Your task to perform on an android device: Go to Maps Image 0: 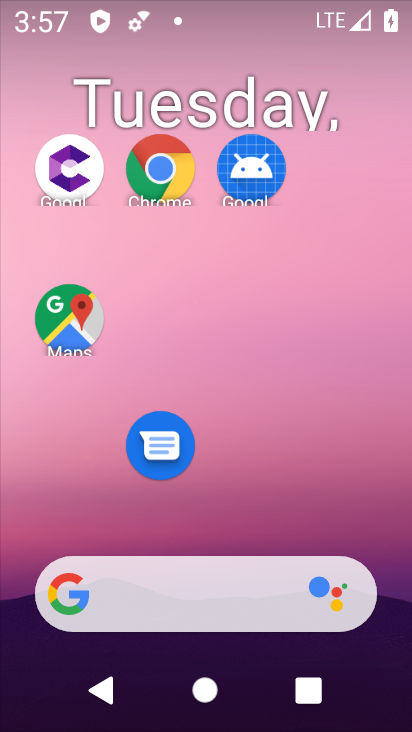
Step 0: click (57, 329)
Your task to perform on an android device: Go to Maps Image 1: 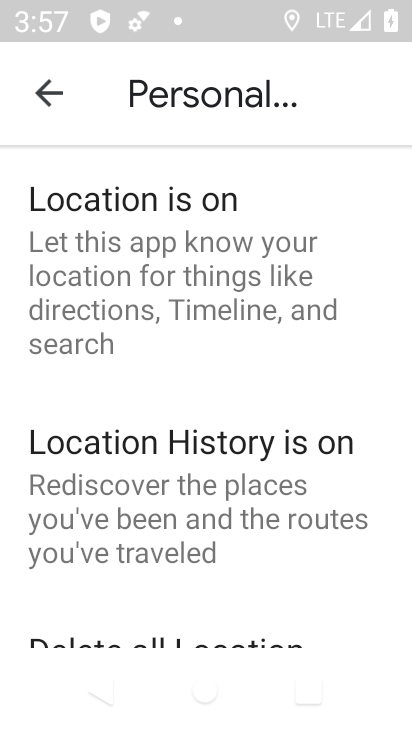
Step 1: click (51, 89)
Your task to perform on an android device: Go to Maps Image 2: 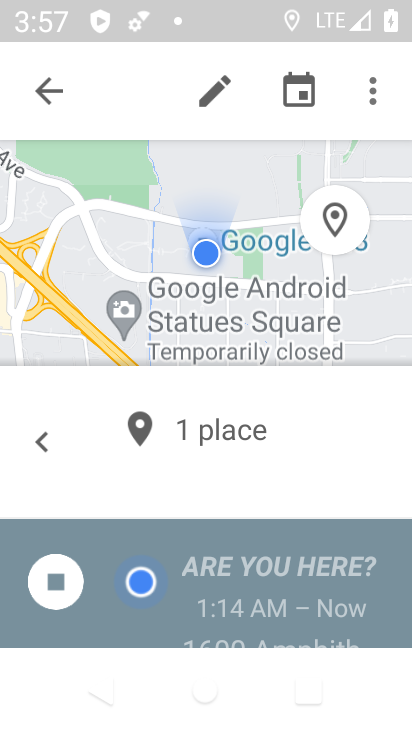
Step 2: click (51, 89)
Your task to perform on an android device: Go to Maps Image 3: 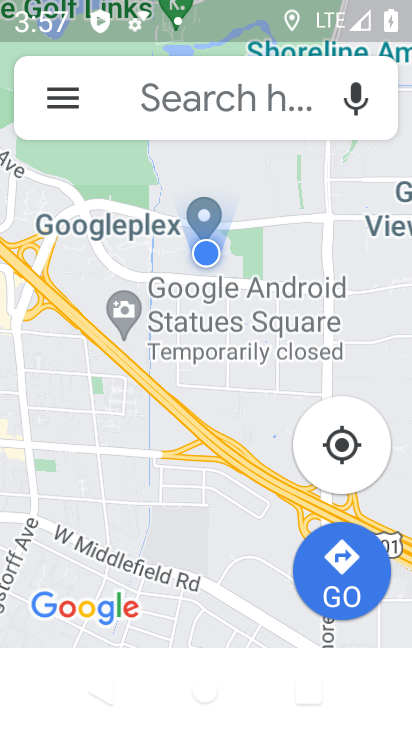
Step 3: task complete